Your task to perform on an android device: What's the weather today? Image 0: 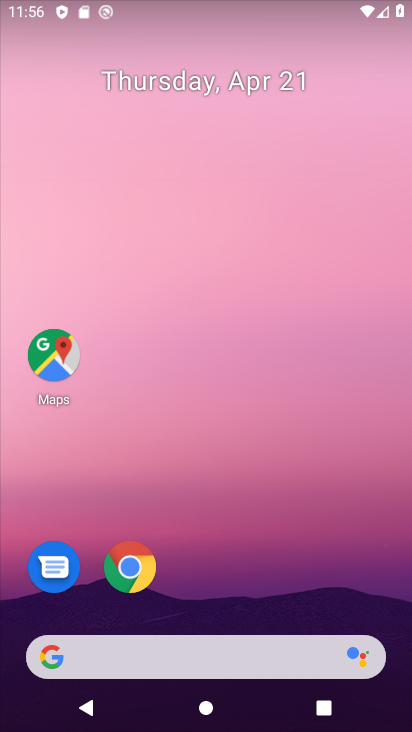
Step 0: drag from (250, 469) to (320, 73)
Your task to perform on an android device: What's the weather today? Image 1: 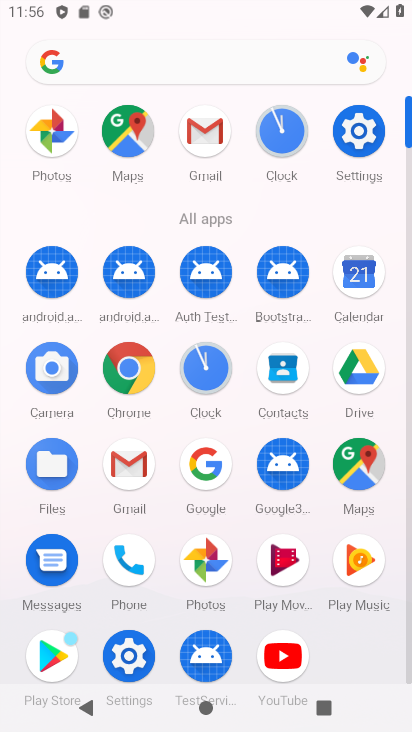
Step 1: click (139, 385)
Your task to perform on an android device: What's the weather today? Image 2: 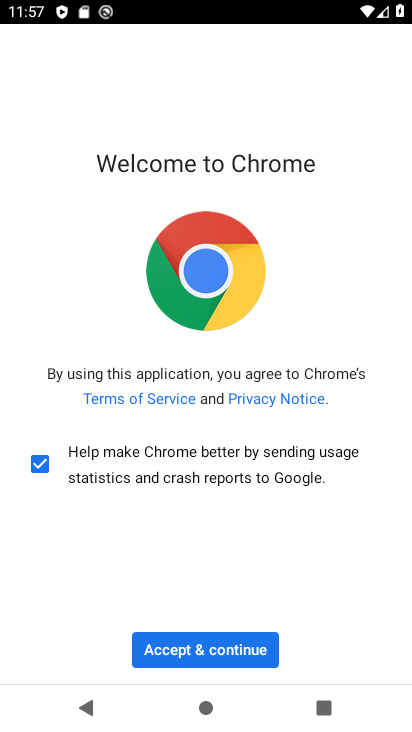
Step 2: click (206, 647)
Your task to perform on an android device: What's the weather today? Image 3: 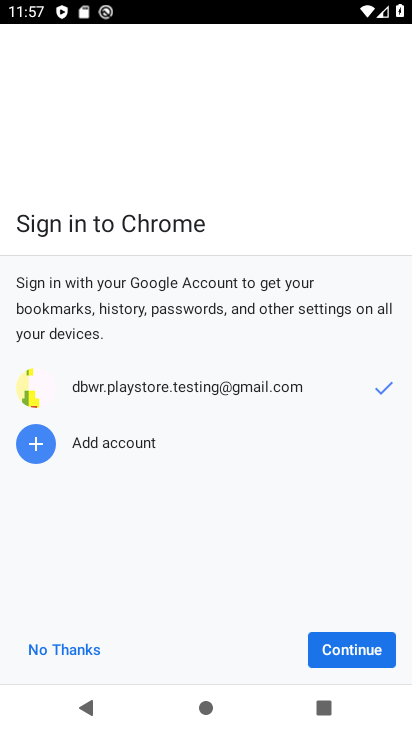
Step 3: click (367, 651)
Your task to perform on an android device: What's the weather today? Image 4: 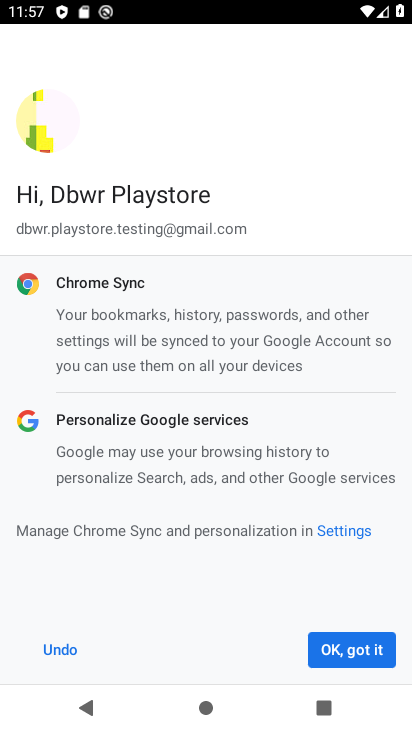
Step 4: click (367, 651)
Your task to perform on an android device: What's the weather today? Image 5: 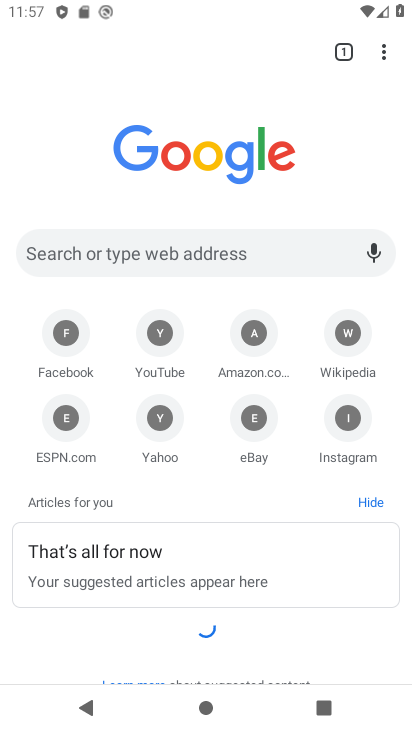
Step 5: click (242, 248)
Your task to perform on an android device: What's the weather today? Image 6: 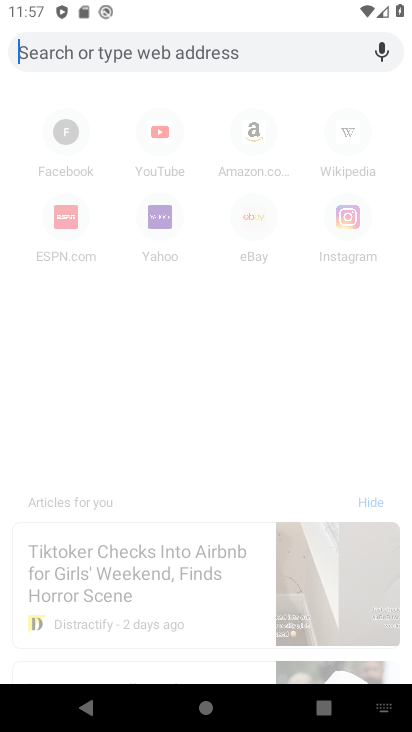
Step 6: type "what's the weather today?"
Your task to perform on an android device: What's the weather today? Image 7: 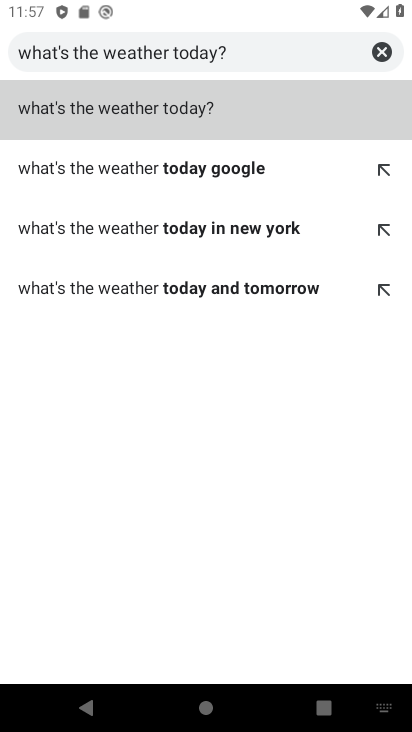
Step 7: click (176, 103)
Your task to perform on an android device: What's the weather today? Image 8: 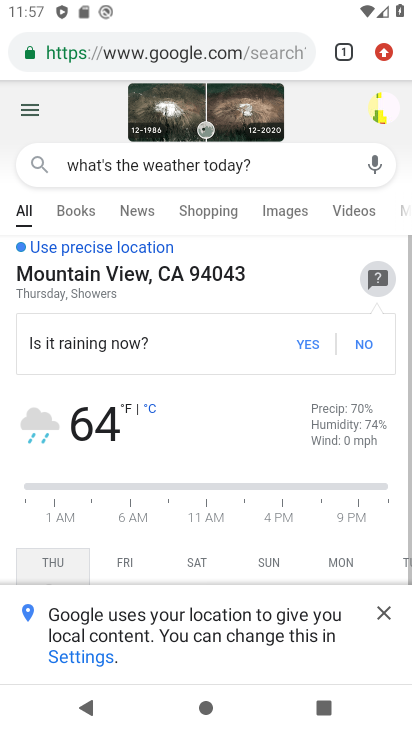
Step 8: task complete